Your task to perform on an android device: turn off javascript in the chrome app Image 0: 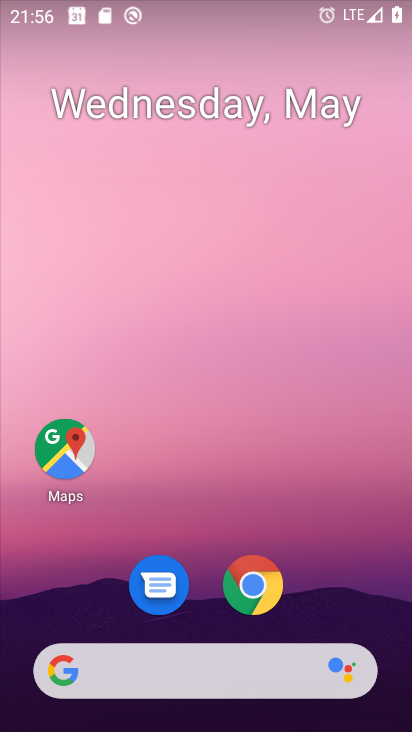
Step 0: click (265, 573)
Your task to perform on an android device: turn off javascript in the chrome app Image 1: 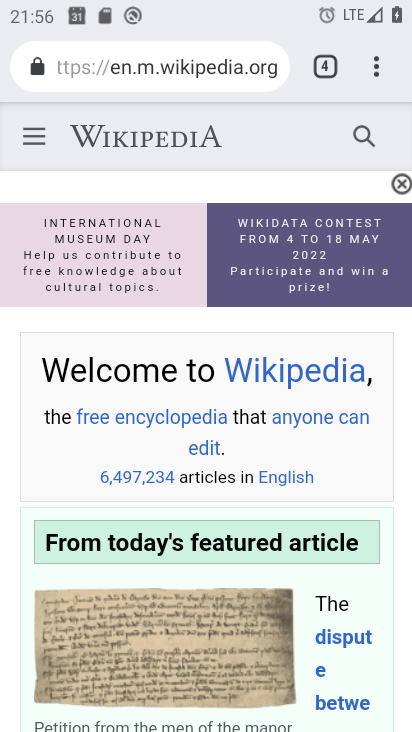
Step 1: click (376, 74)
Your task to perform on an android device: turn off javascript in the chrome app Image 2: 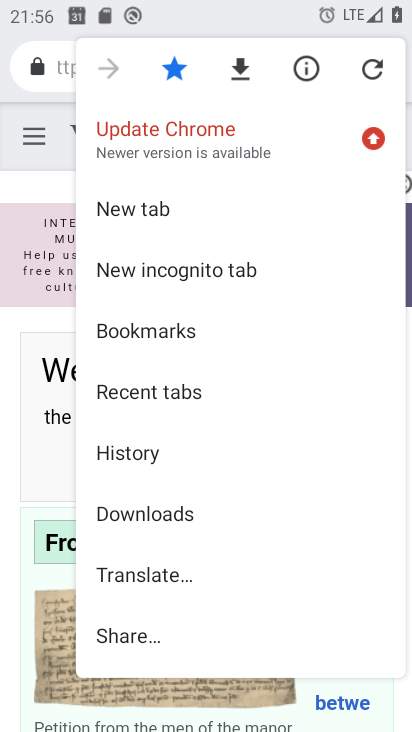
Step 2: drag from (225, 530) to (255, 165)
Your task to perform on an android device: turn off javascript in the chrome app Image 3: 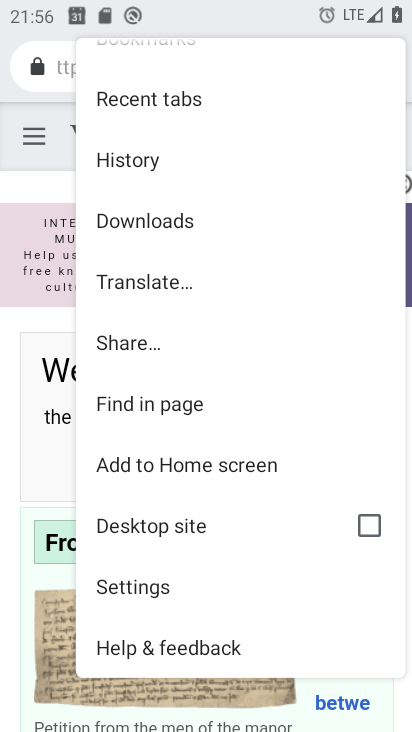
Step 3: click (155, 592)
Your task to perform on an android device: turn off javascript in the chrome app Image 4: 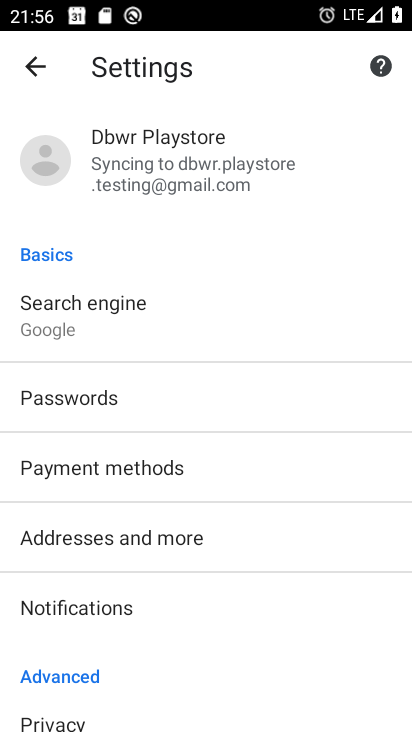
Step 4: drag from (269, 614) to (266, 192)
Your task to perform on an android device: turn off javascript in the chrome app Image 5: 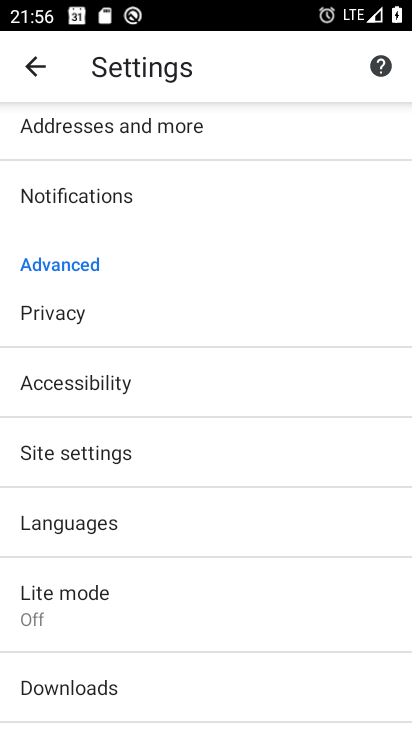
Step 5: click (181, 463)
Your task to perform on an android device: turn off javascript in the chrome app Image 6: 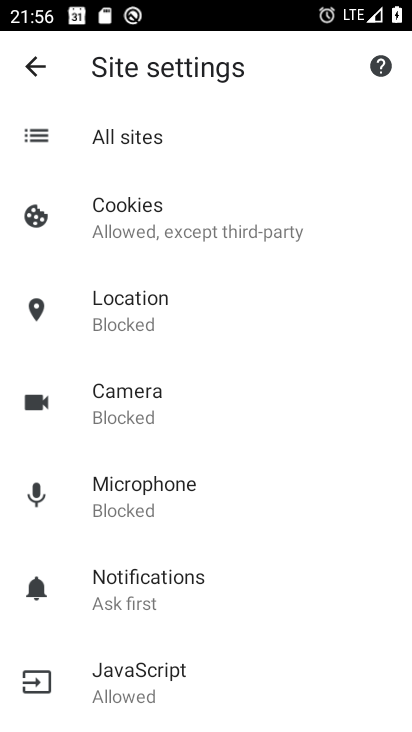
Step 6: click (189, 673)
Your task to perform on an android device: turn off javascript in the chrome app Image 7: 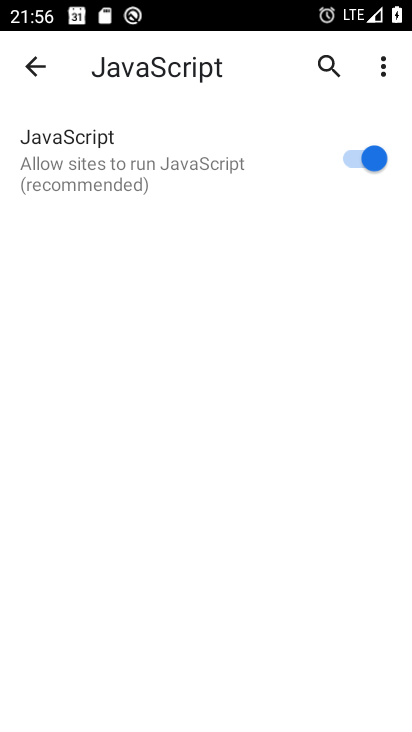
Step 7: click (356, 158)
Your task to perform on an android device: turn off javascript in the chrome app Image 8: 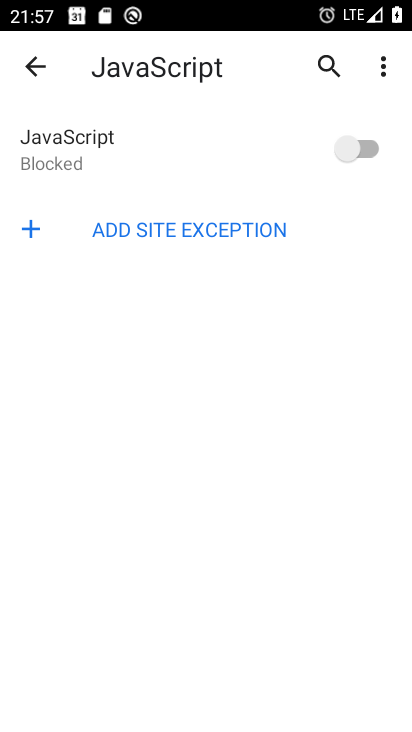
Step 8: task complete